Your task to perform on an android device: Open the phone app and click the voicemail tab. Image 0: 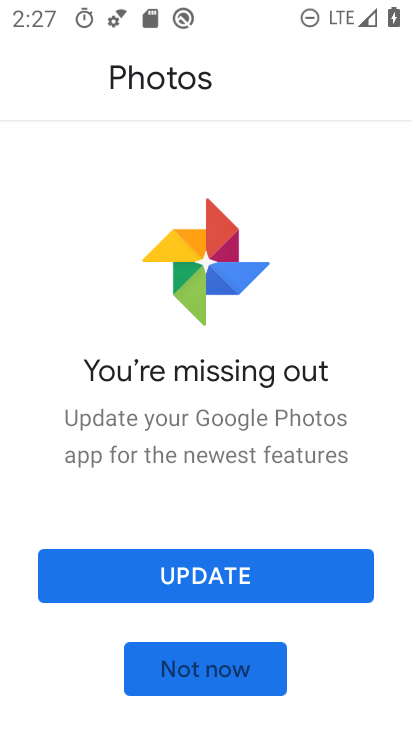
Step 0: press home button
Your task to perform on an android device: Open the phone app and click the voicemail tab. Image 1: 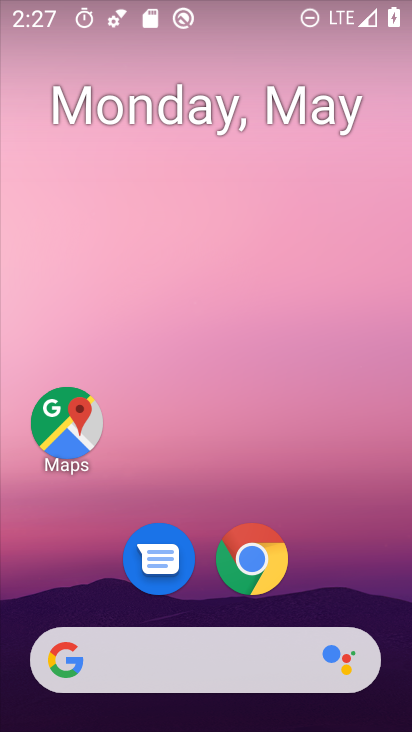
Step 1: drag from (368, 578) to (351, 25)
Your task to perform on an android device: Open the phone app and click the voicemail tab. Image 2: 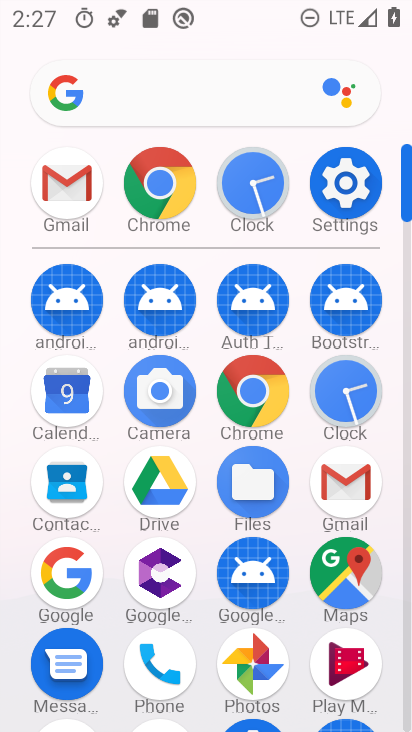
Step 2: click (155, 656)
Your task to perform on an android device: Open the phone app and click the voicemail tab. Image 3: 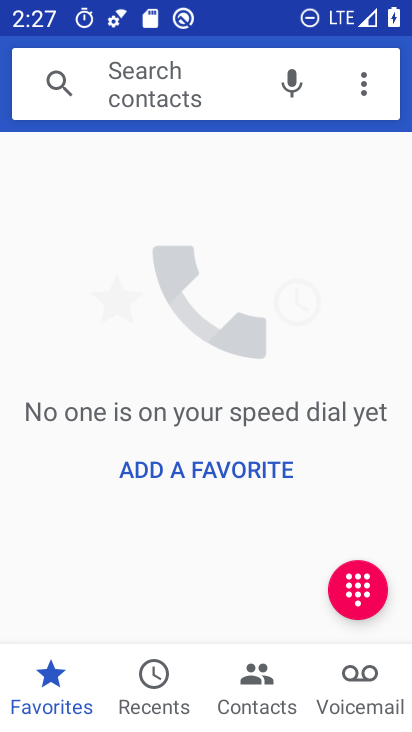
Step 3: click (358, 690)
Your task to perform on an android device: Open the phone app and click the voicemail tab. Image 4: 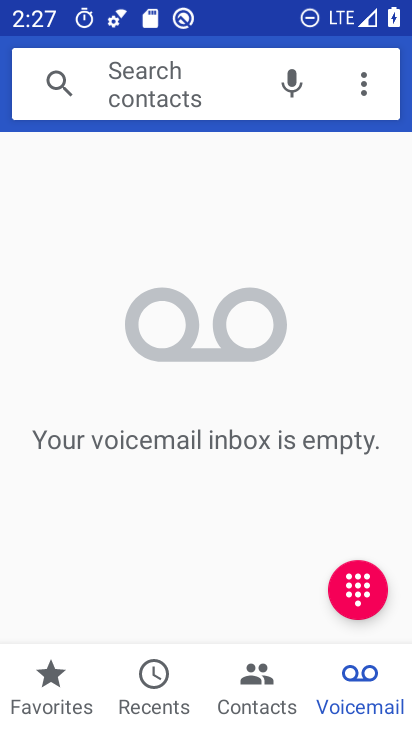
Step 4: task complete